Your task to perform on an android device: Show the shopping cart on costco. Add asus zenbook to the cart on costco, then select checkout. Image 0: 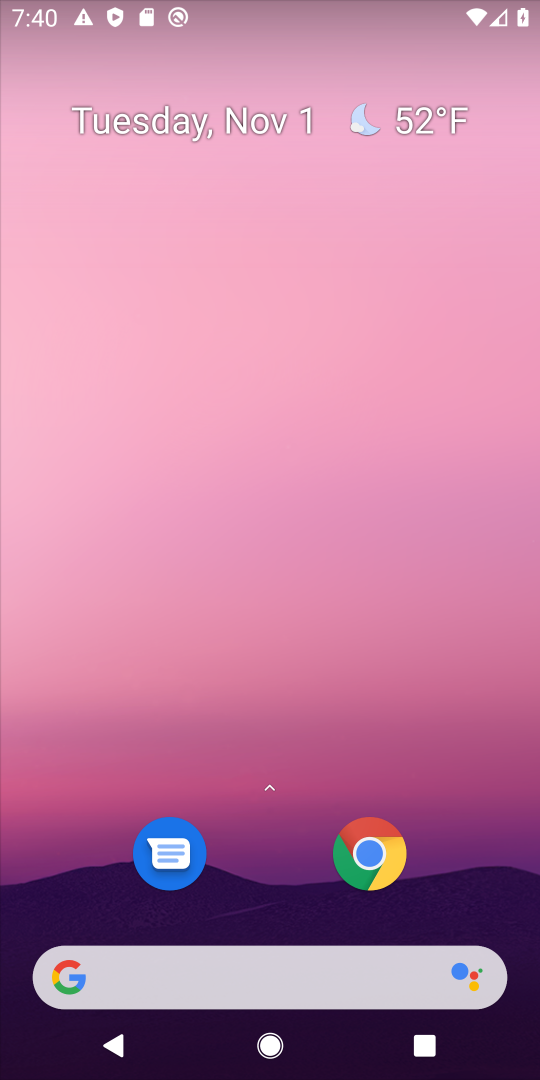
Step 0: click (315, 972)
Your task to perform on an android device: Show the shopping cart on costco. Add asus zenbook to the cart on costco, then select checkout. Image 1: 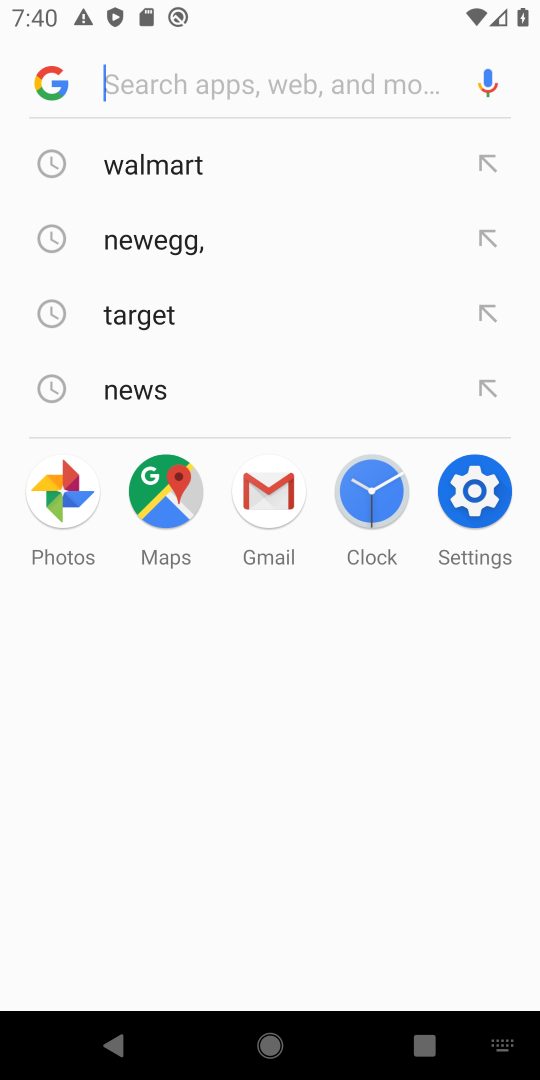
Step 1: type "costco"
Your task to perform on an android device: Show the shopping cart on costco. Add asus zenbook to the cart on costco, then select checkout. Image 2: 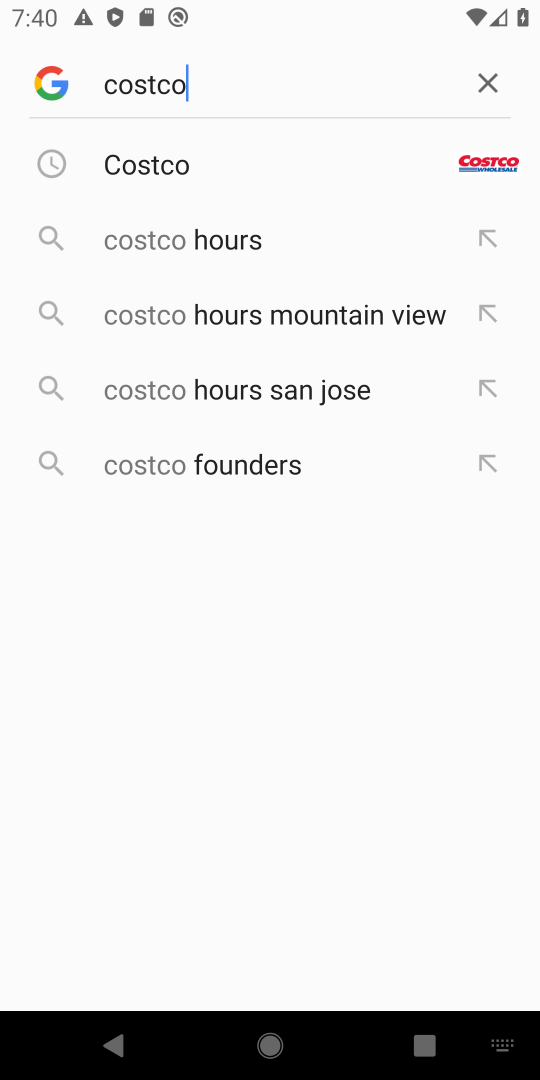
Step 2: click (206, 149)
Your task to perform on an android device: Show the shopping cart on costco. Add asus zenbook to the cart on costco, then select checkout. Image 3: 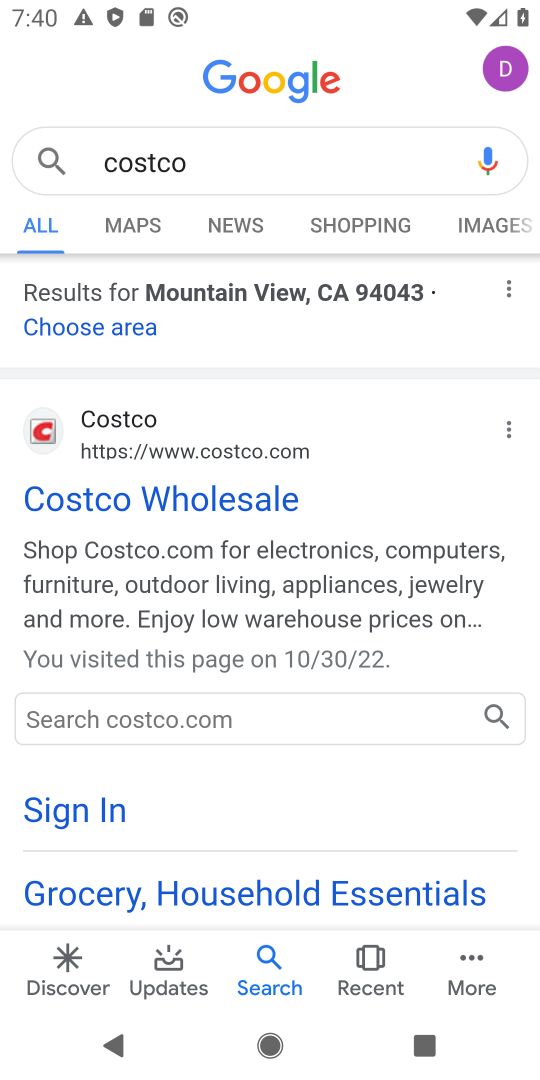
Step 3: click (150, 477)
Your task to perform on an android device: Show the shopping cart on costco. Add asus zenbook to the cart on costco, then select checkout. Image 4: 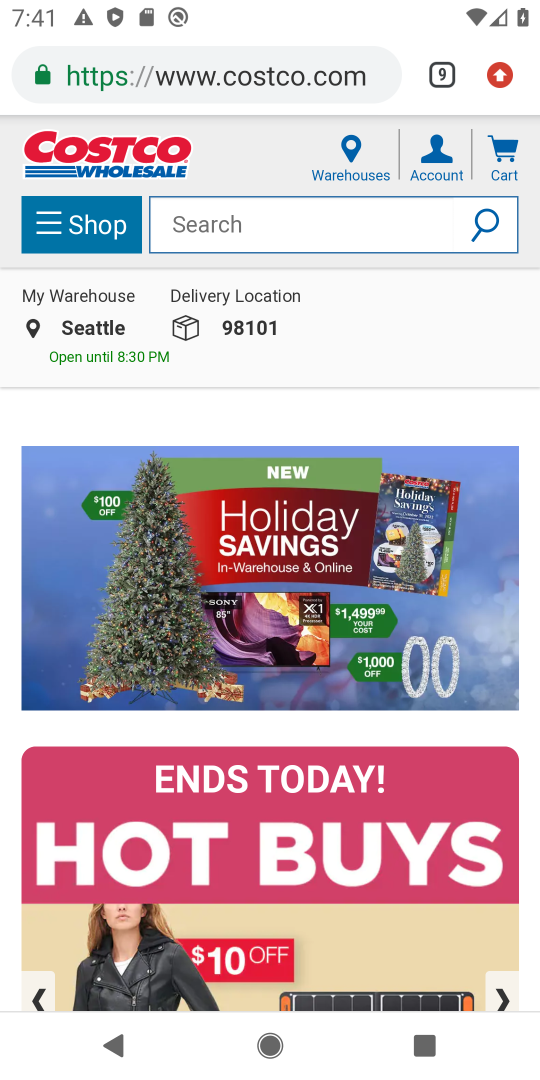
Step 4: click (240, 240)
Your task to perform on an android device: Show the shopping cart on costco. Add asus zenbook to the cart on costco, then select checkout. Image 5: 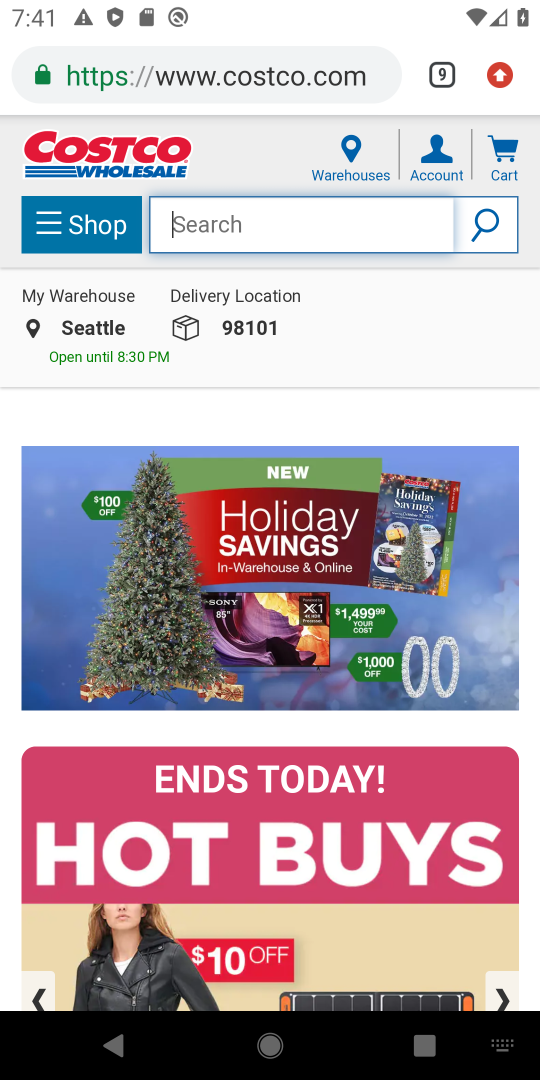
Step 5: type "asus zenbook"
Your task to perform on an android device: Show the shopping cart on costco. Add asus zenbook to the cart on costco, then select checkout. Image 6: 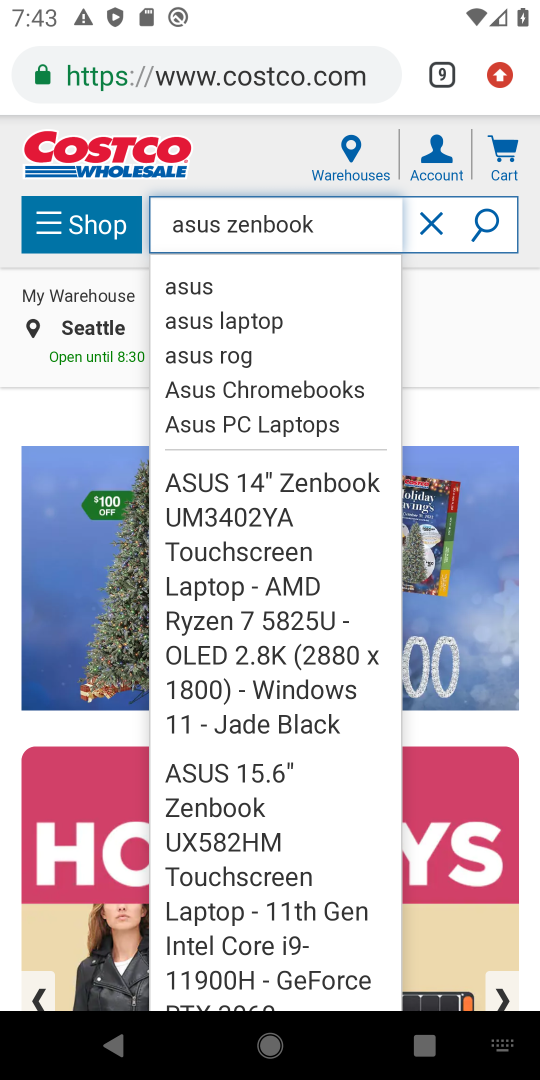
Step 6: click (477, 236)
Your task to perform on an android device: Show the shopping cart on costco. Add asus zenbook to the cart on costco, then select checkout. Image 7: 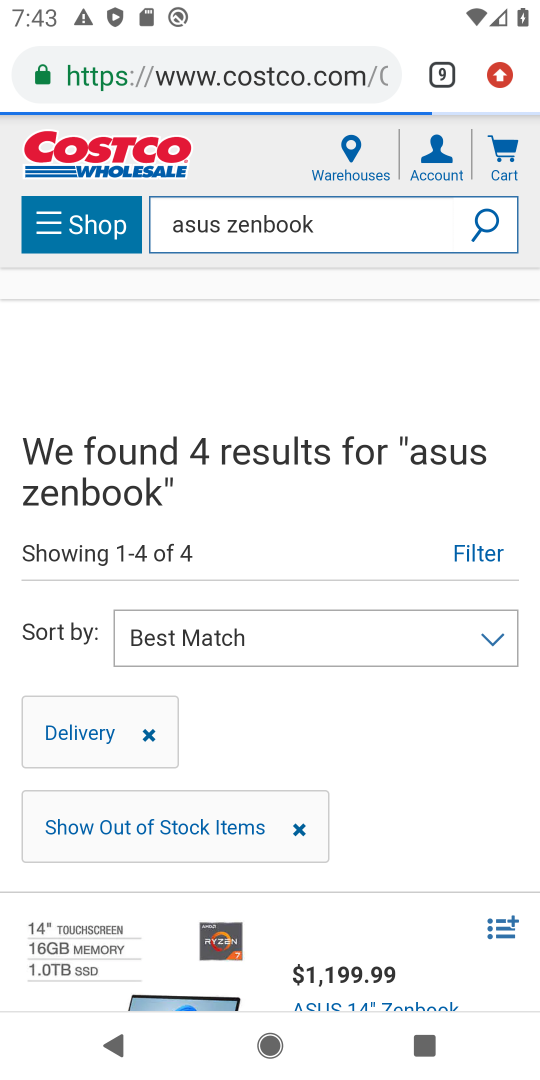
Step 7: click (327, 972)
Your task to perform on an android device: Show the shopping cart on costco. Add asus zenbook to the cart on costco, then select checkout. Image 8: 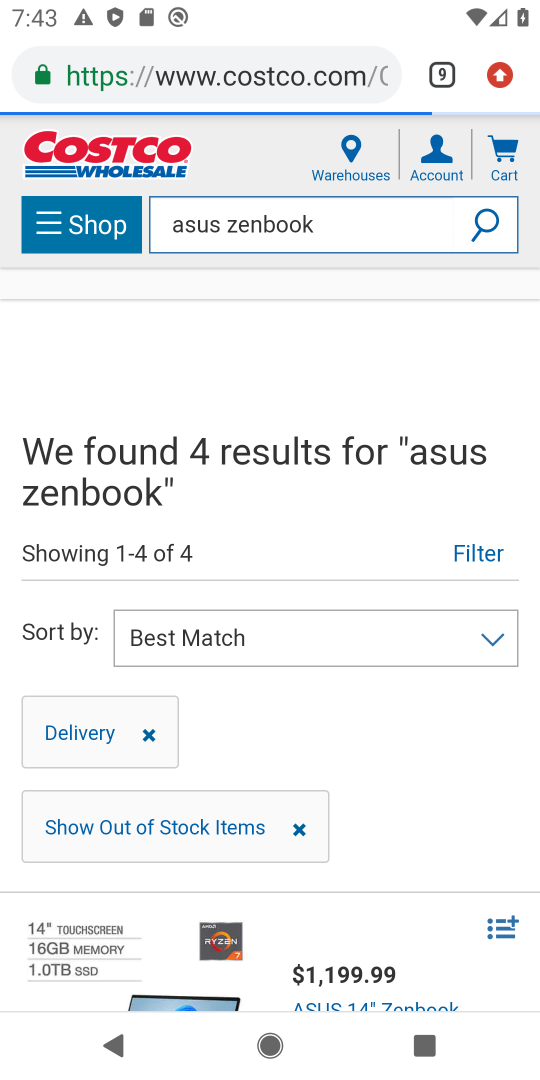
Step 8: task complete